Your task to perform on an android device: search for starred emails in the gmail app Image 0: 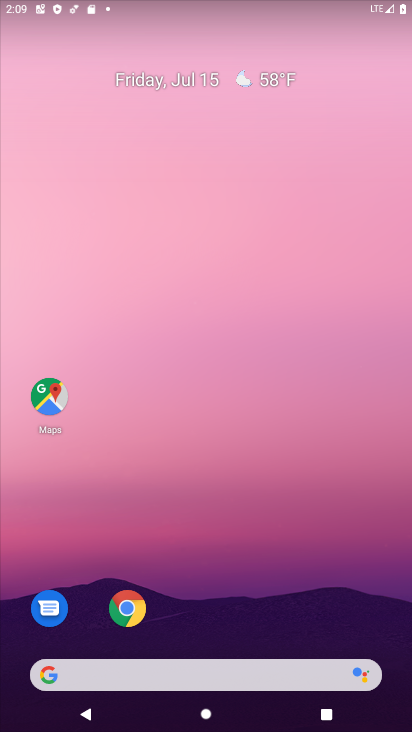
Step 0: drag from (260, 619) to (231, 89)
Your task to perform on an android device: search for starred emails in the gmail app Image 1: 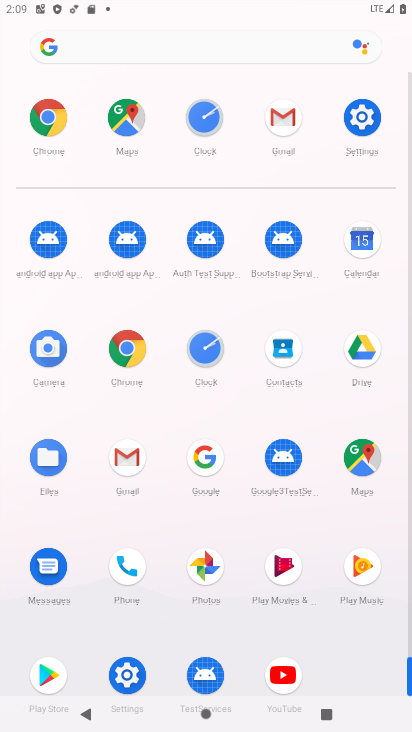
Step 1: click (139, 444)
Your task to perform on an android device: search for starred emails in the gmail app Image 2: 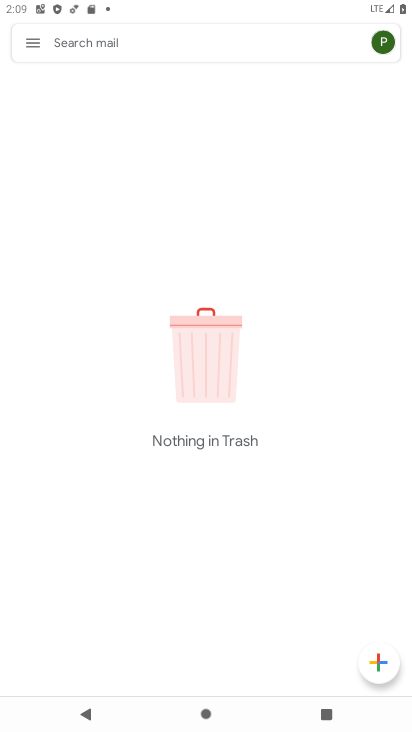
Step 2: click (26, 35)
Your task to perform on an android device: search for starred emails in the gmail app Image 3: 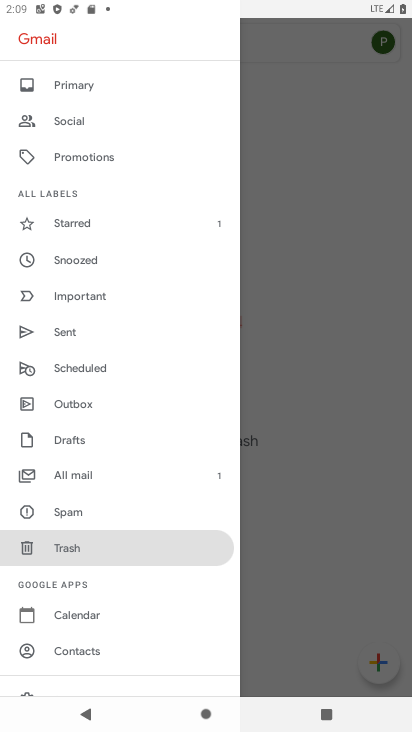
Step 3: click (58, 219)
Your task to perform on an android device: search for starred emails in the gmail app Image 4: 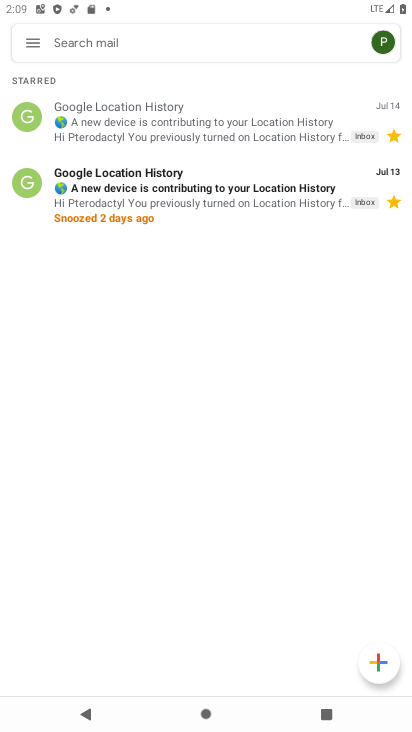
Step 4: task complete